Your task to perform on an android device: Is it going to rain today? Image 0: 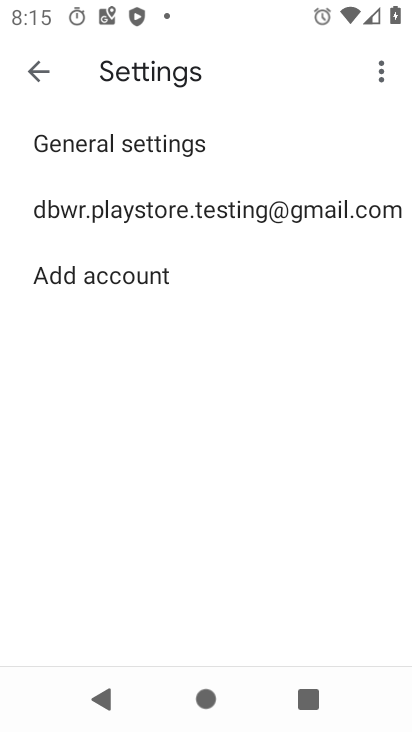
Step 0: press back button
Your task to perform on an android device: Is it going to rain today? Image 1: 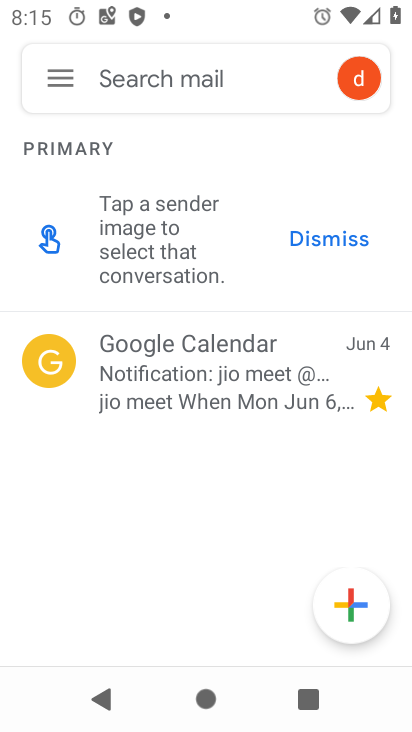
Step 1: press back button
Your task to perform on an android device: Is it going to rain today? Image 2: 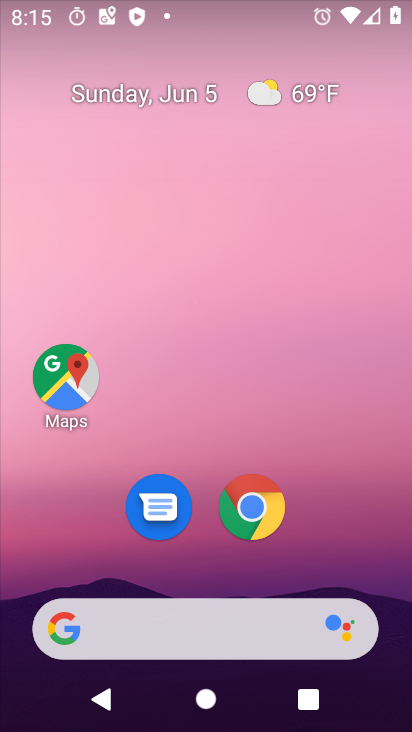
Step 2: drag from (344, 566) to (245, 19)
Your task to perform on an android device: Is it going to rain today? Image 3: 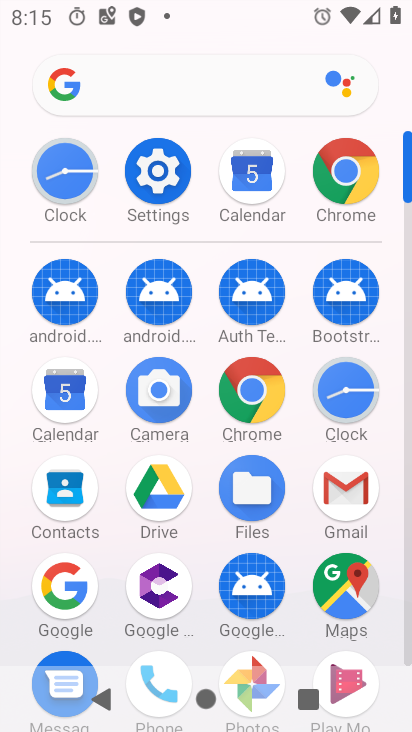
Step 3: click (253, 384)
Your task to perform on an android device: Is it going to rain today? Image 4: 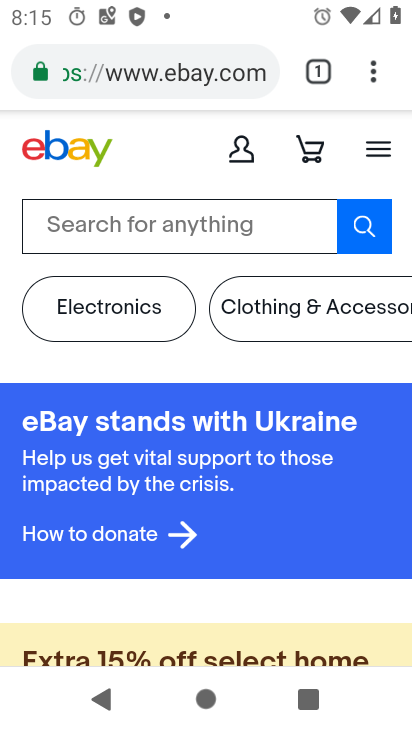
Step 4: click (204, 58)
Your task to perform on an android device: Is it going to rain today? Image 5: 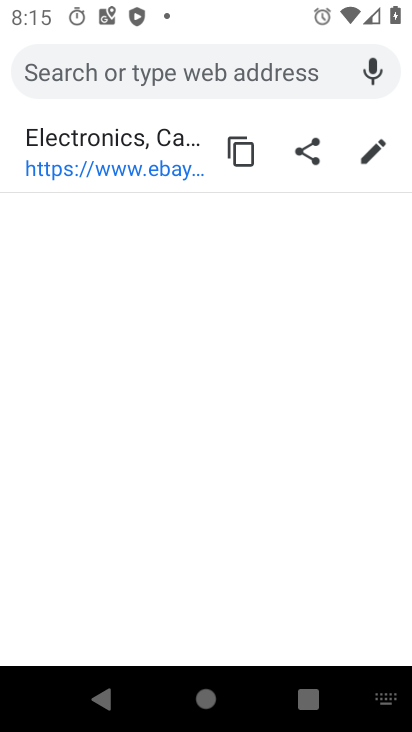
Step 5: type "Is it going to rain today?"
Your task to perform on an android device: Is it going to rain today? Image 6: 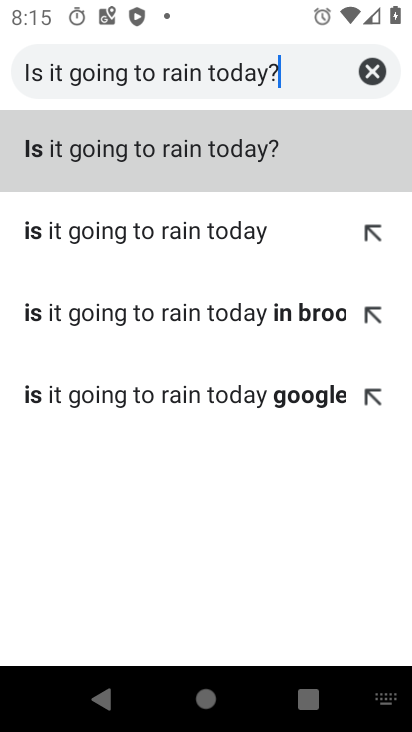
Step 6: type ""
Your task to perform on an android device: Is it going to rain today? Image 7: 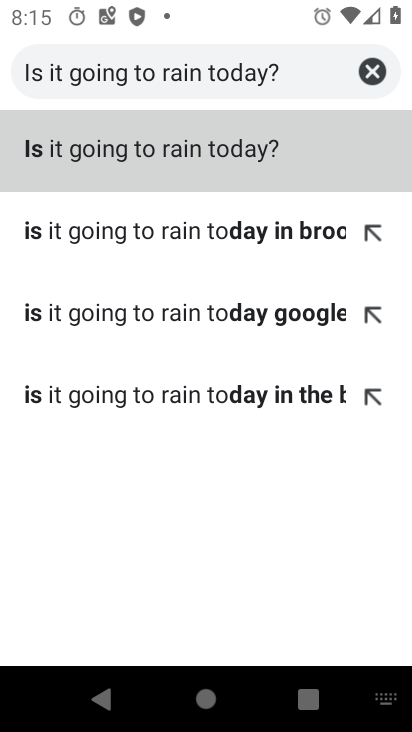
Step 7: click (155, 141)
Your task to perform on an android device: Is it going to rain today? Image 8: 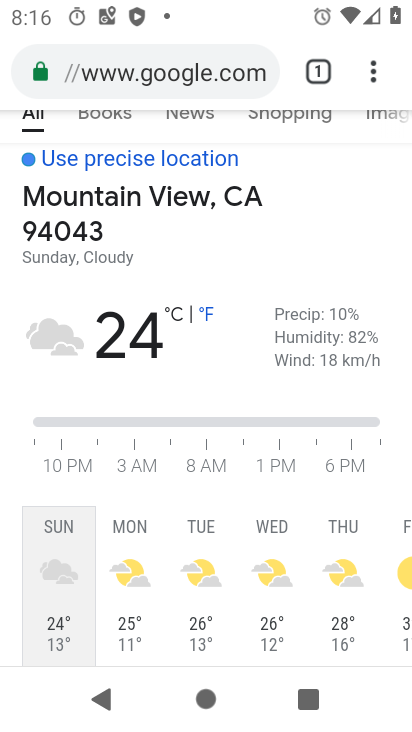
Step 8: task complete